Your task to perform on an android device: turn off picture-in-picture Image 0: 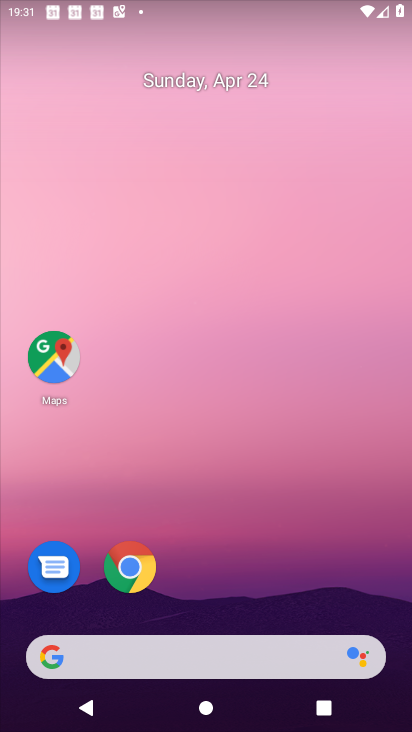
Step 0: click (262, 356)
Your task to perform on an android device: turn off picture-in-picture Image 1: 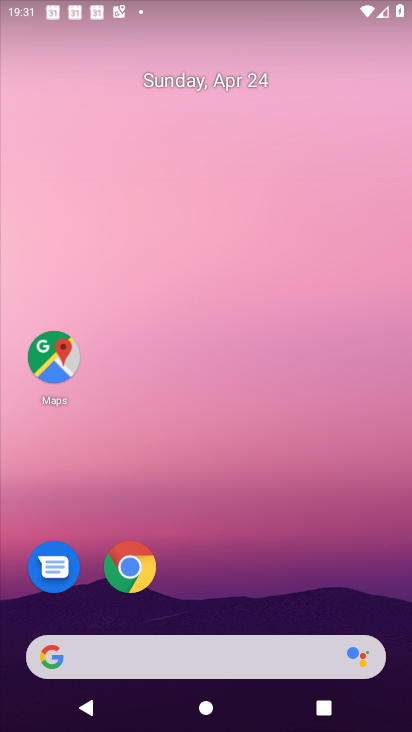
Step 1: drag from (282, 692) to (274, 237)
Your task to perform on an android device: turn off picture-in-picture Image 2: 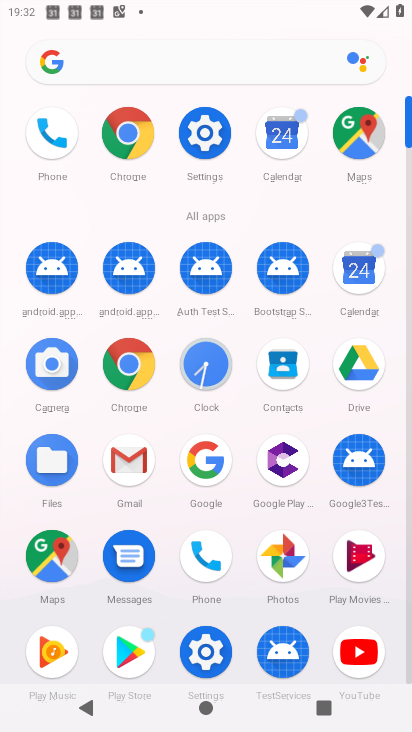
Step 2: click (209, 138)
Your task to perform on an android device: turn off picture-in-picture Image 3: 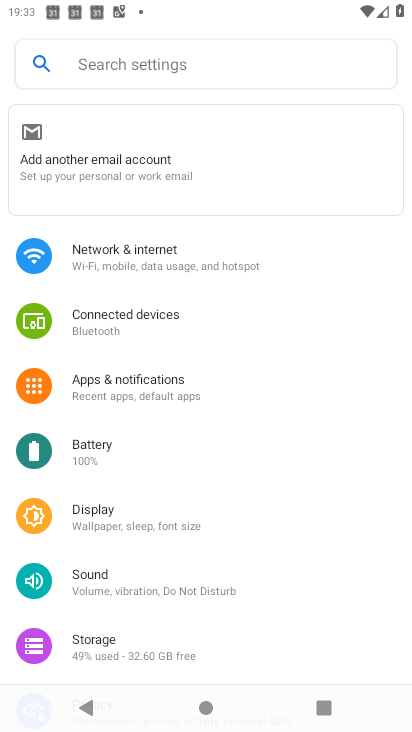
Step 3: click (164, 74)
Your task to perform on an android device: turn off picture-in-picture Image 4: 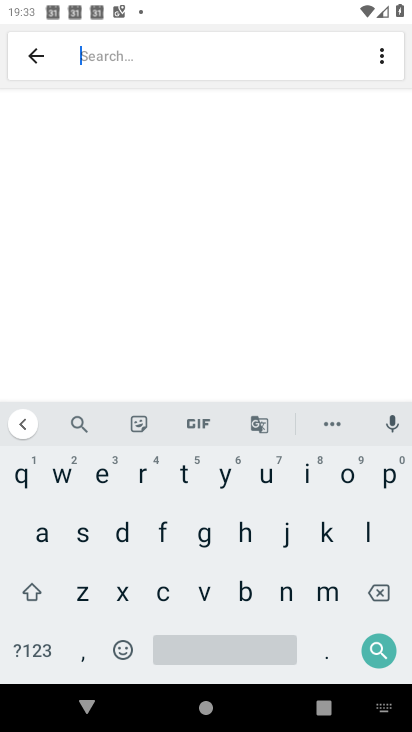
Step 4: click (393, 487)
Your task to perform on an android device: turn off picture-in-picture Image 5: 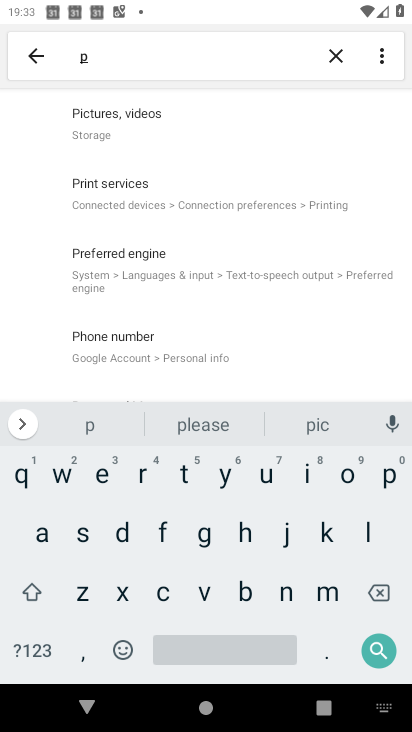
Step 5: click (311, 472)
Your task to perform on an android device: turn off picture-in-picture Image 6: 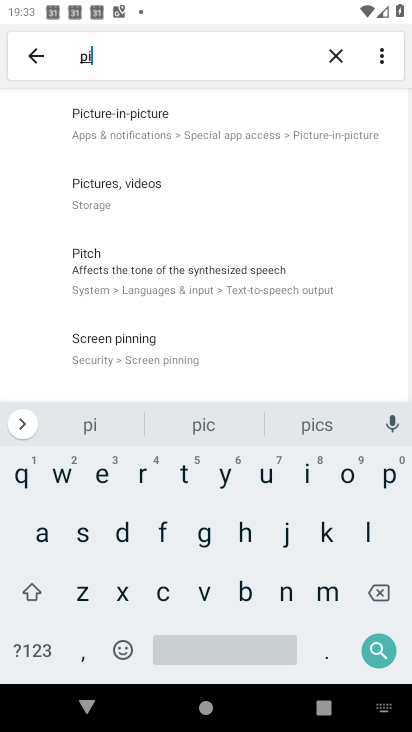
Step 6: click (168, 592)
Your task to perform on an android device: turn off picture-in-picture Image 7: 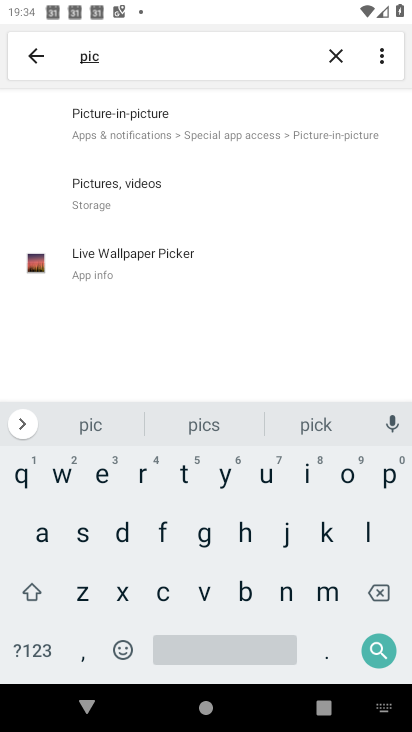
Step 7: click (182, 116)
Your task to perform on an android device: turn off picture-in-picture Image 8: 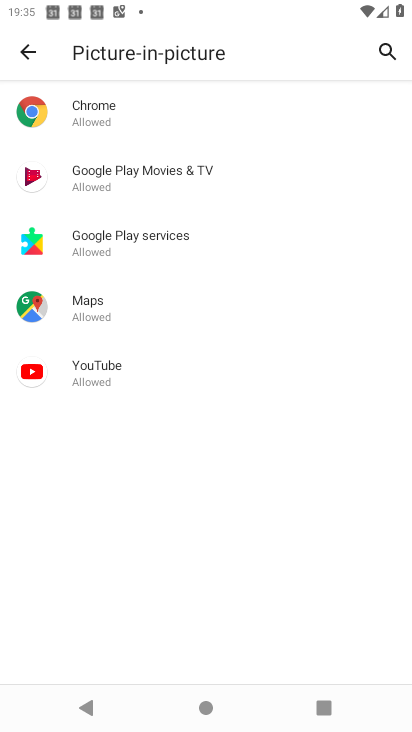
Step 8: task complete